Your task to perform on an android device: Go to sound settings Image 0: 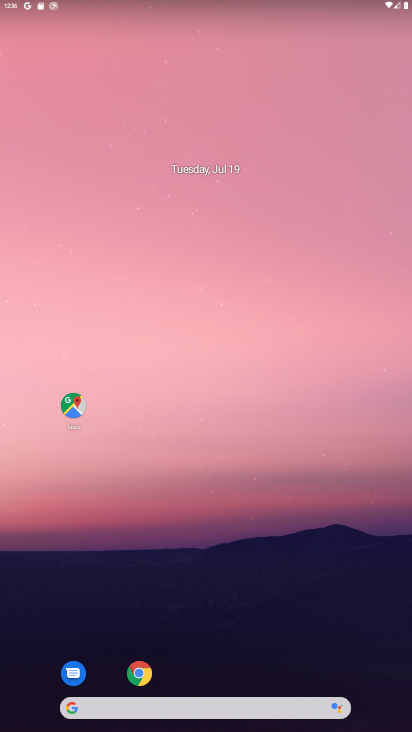
Step 0: drag from (182, 669) to (267, 5)
Your task to perform on an android device: Go to sound settings Image 1: 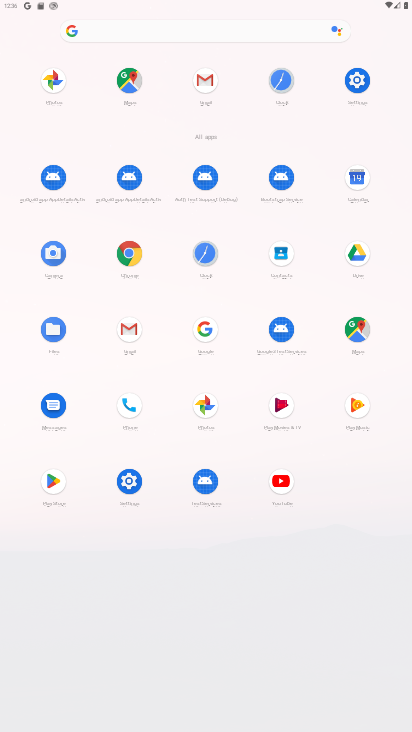
Step 1: click (358, 87)
Your task to perform on an android device: Go to sound settings Image 2: 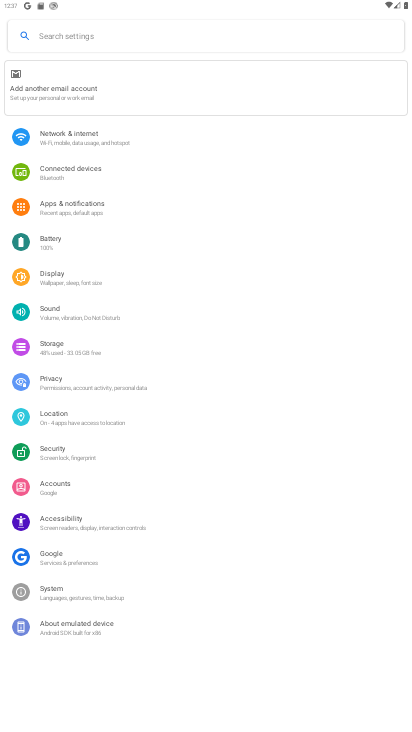
Step 2: click (67, 315)
Your task to perform on an android device: Go to sound settings Image 3: 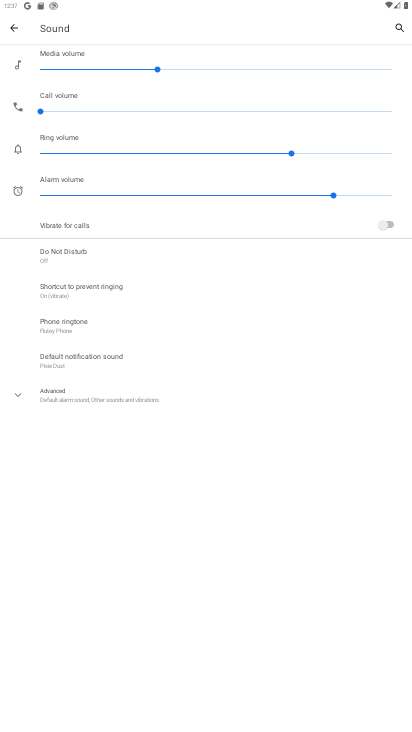
Step 3: task complete